Your task to perform on an android device: What's on my calendar tomorrow? Image 0: 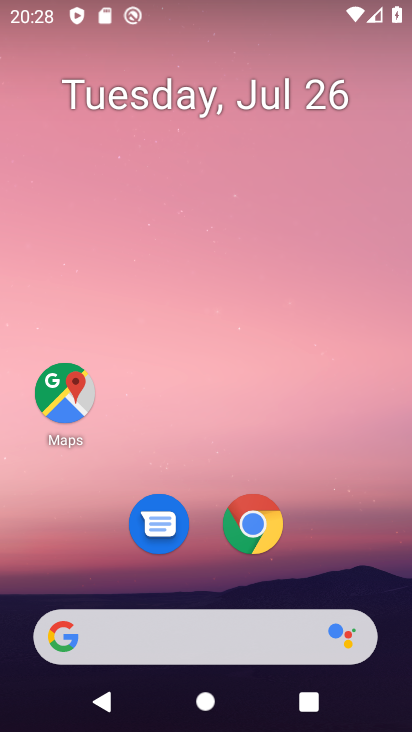
Step 0: press home button
Your task to perform on an android device: What's on my calendar tomorrow? Image 1: 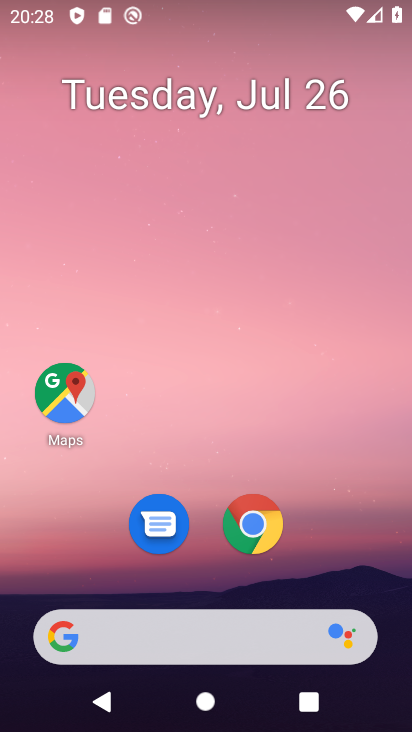
Step 1: drag from (186, 650) to (347, 131)
Your task to perform on an android device: What's on my calendar tomorrow? Image 2: 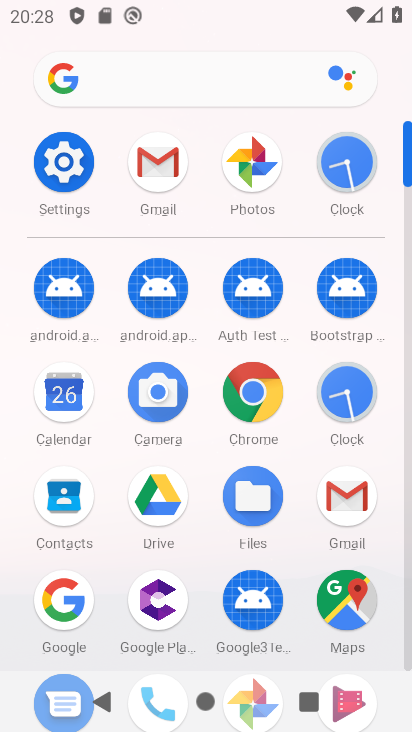
Step 2: click (64, 404)
Your task to perform on an android device: What's on my calendar tomorrow? Image 3: 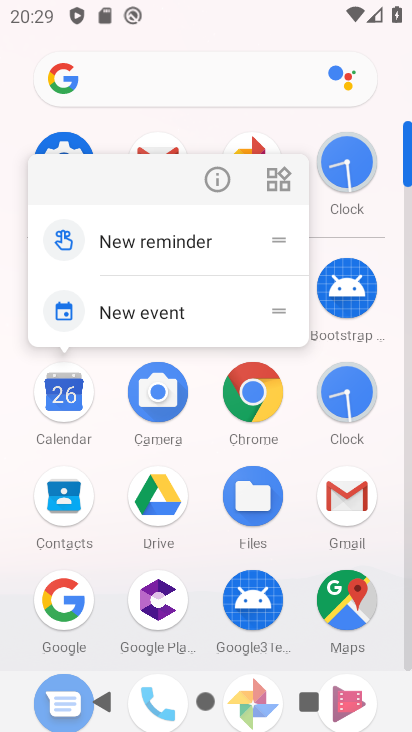
Step 3: click (73, 405)
Your task to perform on an android device: What's on my calendar tomorrow? Image 4: 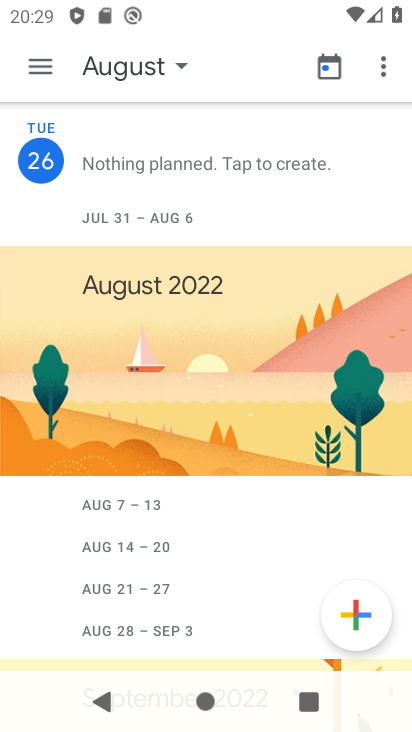
Step 4: click (118, 66)
Your task to perform on an android device: What's on my calendar tomorrow? Image 5: 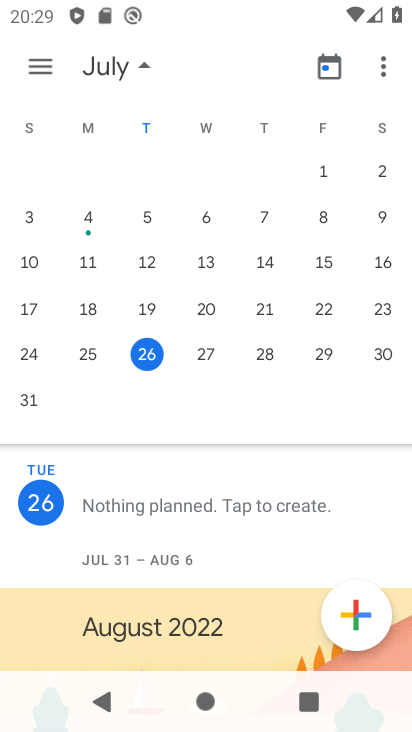
Step 5: click (206, 358)
Your task to perform on an android device: What's on my calendar tomorrow? Image 6: 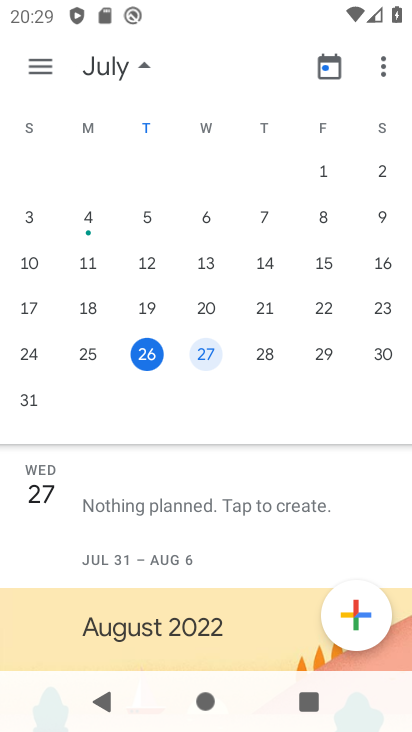
Step 6: task complete